Your task to perform on an android device: View the shopping cart on amazon.com. Add "logitech g903" to the cart on amazon.com Image 0: 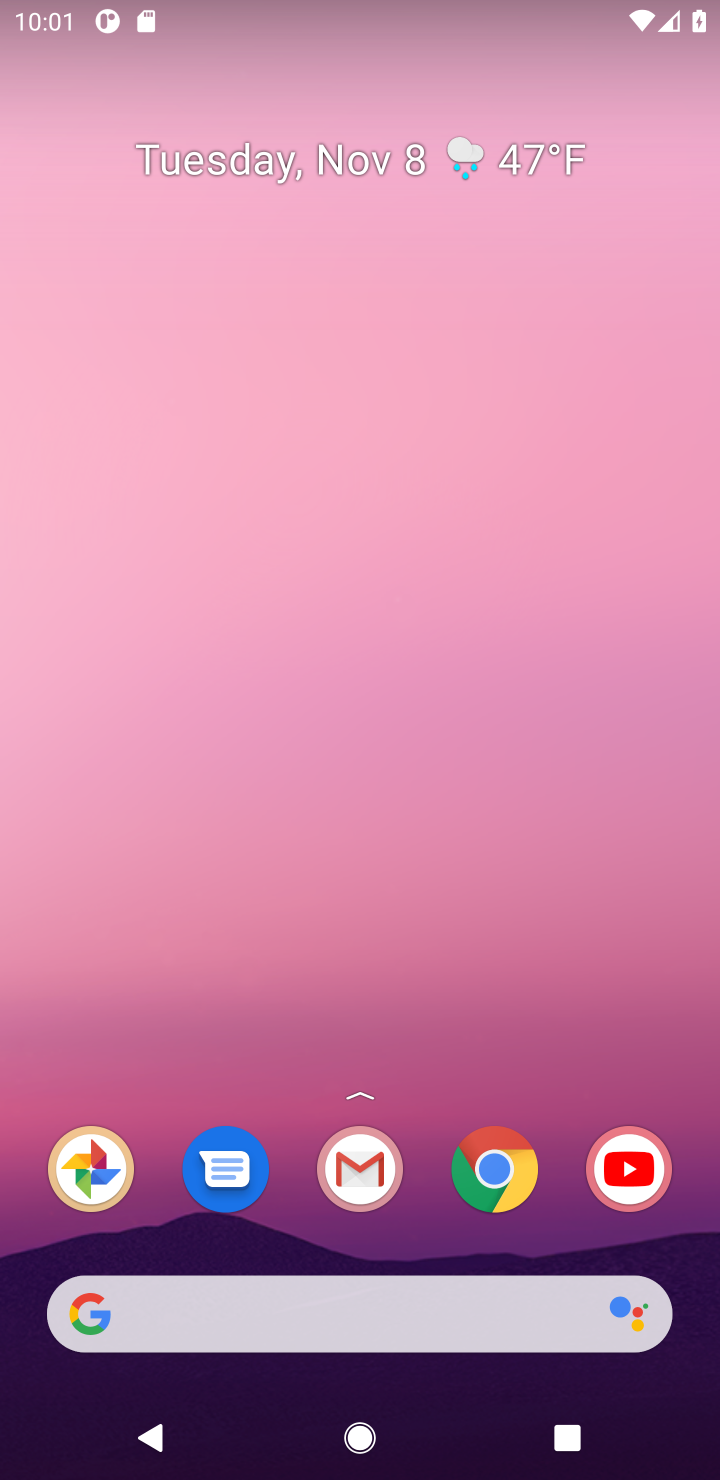
Step 0: click (502, 1195)
Your task to perform on an android device: View the shopping cart on amazon.com. Add "logitech g903" to the cart on amazon.com Image 1: 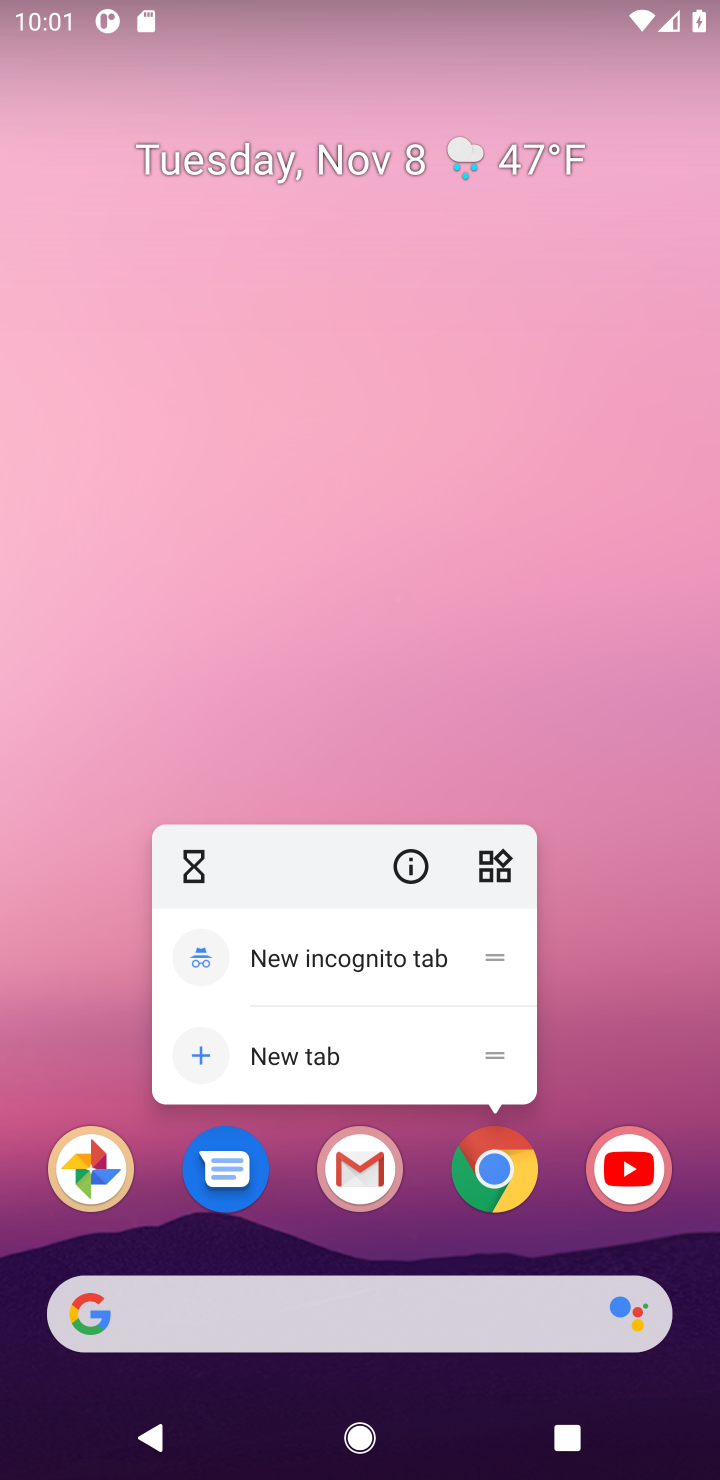
Step 1: click (513, 1165)
Your task to perform on an android device: View the shopping cart on amazon.com. Add "logitech g903" to the cart on amazon.com Image 2: 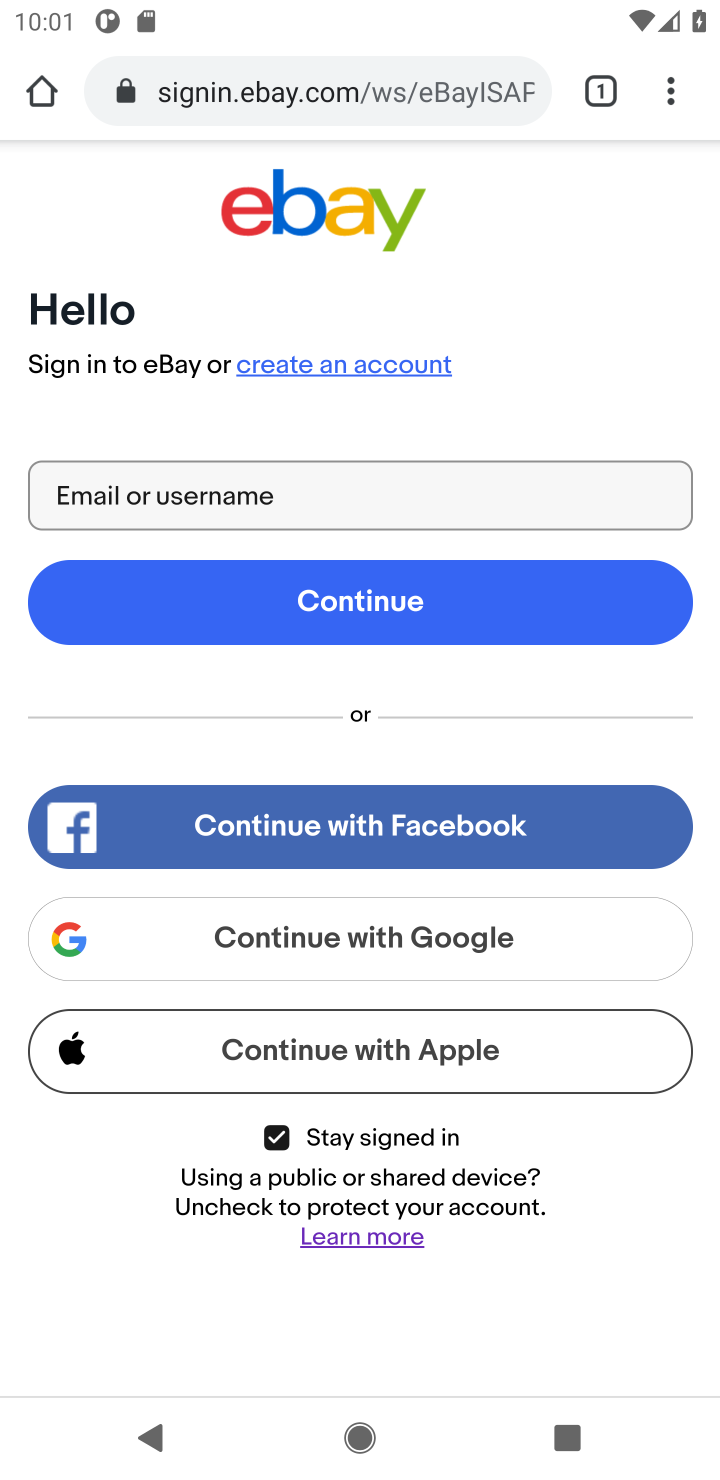
Step 2: click (320, 107)
Your task to perform on an android device: View the shopping cart on amazon.com. Add "logitech g903" to the cart on amazon.com Image 3: 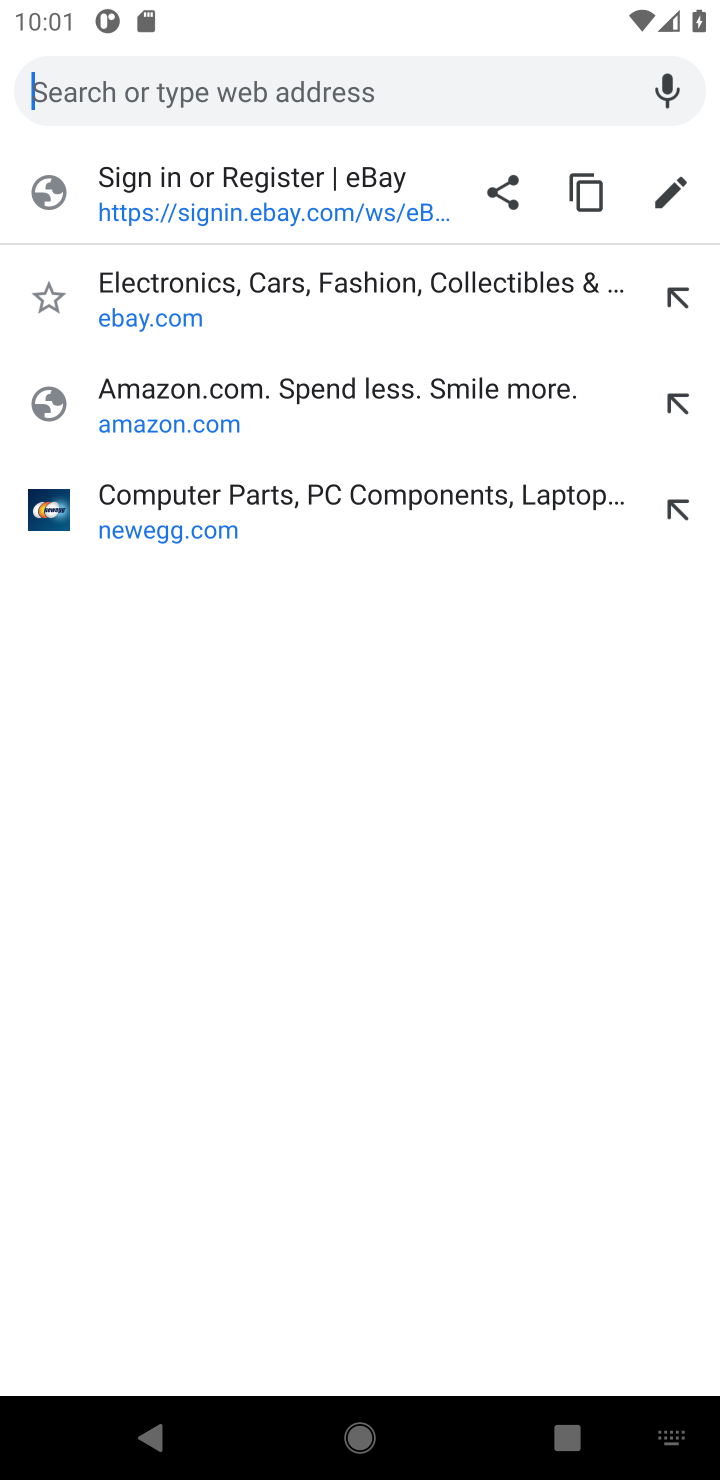
Step 3: press enter
Your task to perform on an android device: View the shopping cart on amazon.com. Add "logitech g903" to the cart on amazon.com Image 4: 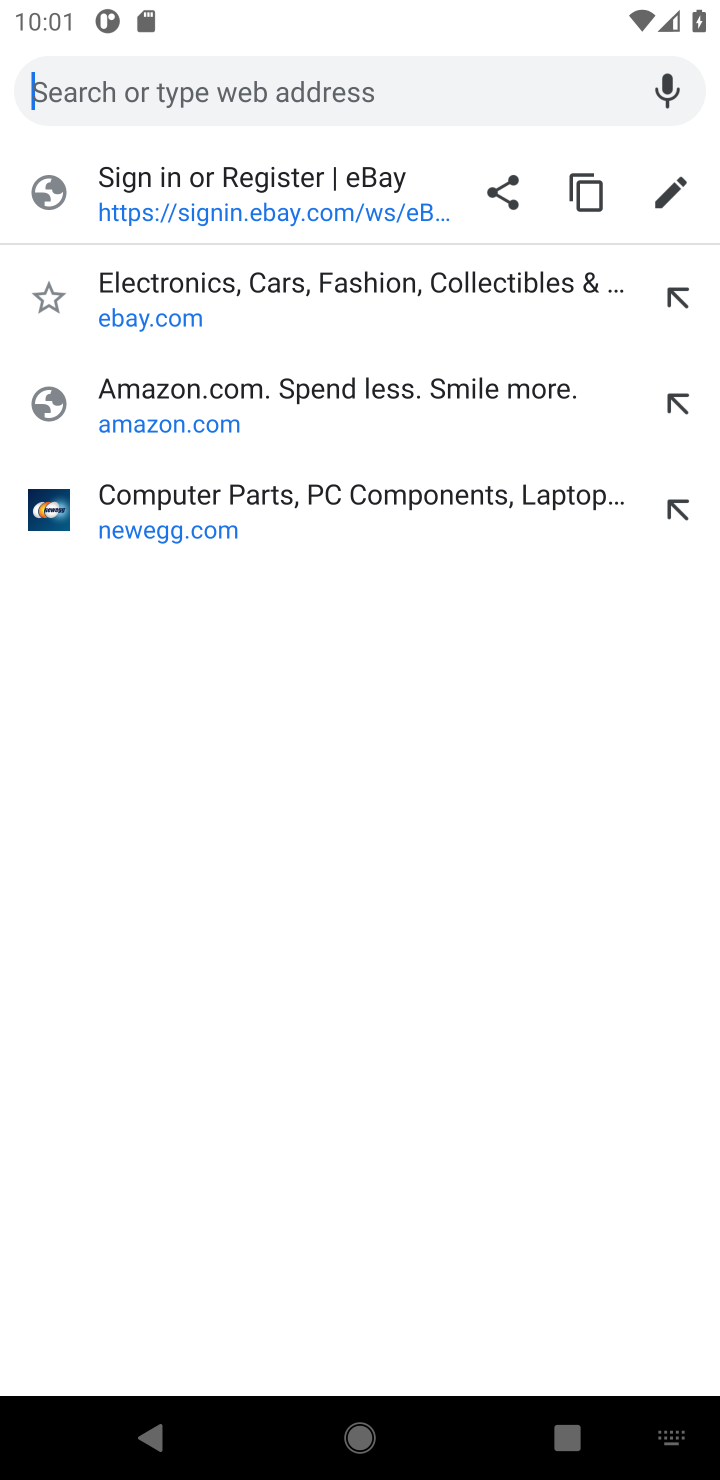
Step 4: type "amazon.com"
Your task to perform on an android device: View the shopping cart on amazon.com. Add "logitech g903" to the cart on amazon.com Image 5: 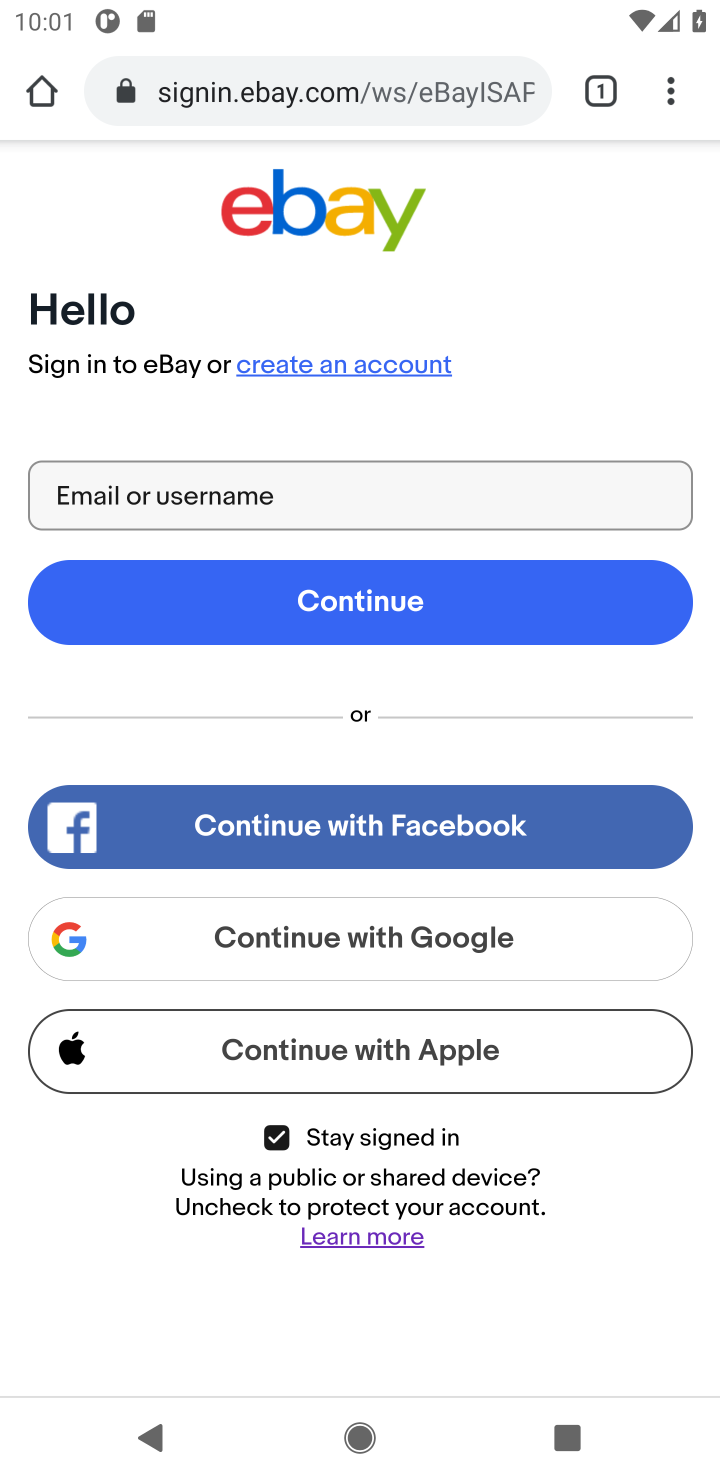
Step 5: click (409, 101)
Your task to perform on an android device: View the shopping cart on amazon.com. Add "logitech g903" to the cart on amazon.com Image 6: 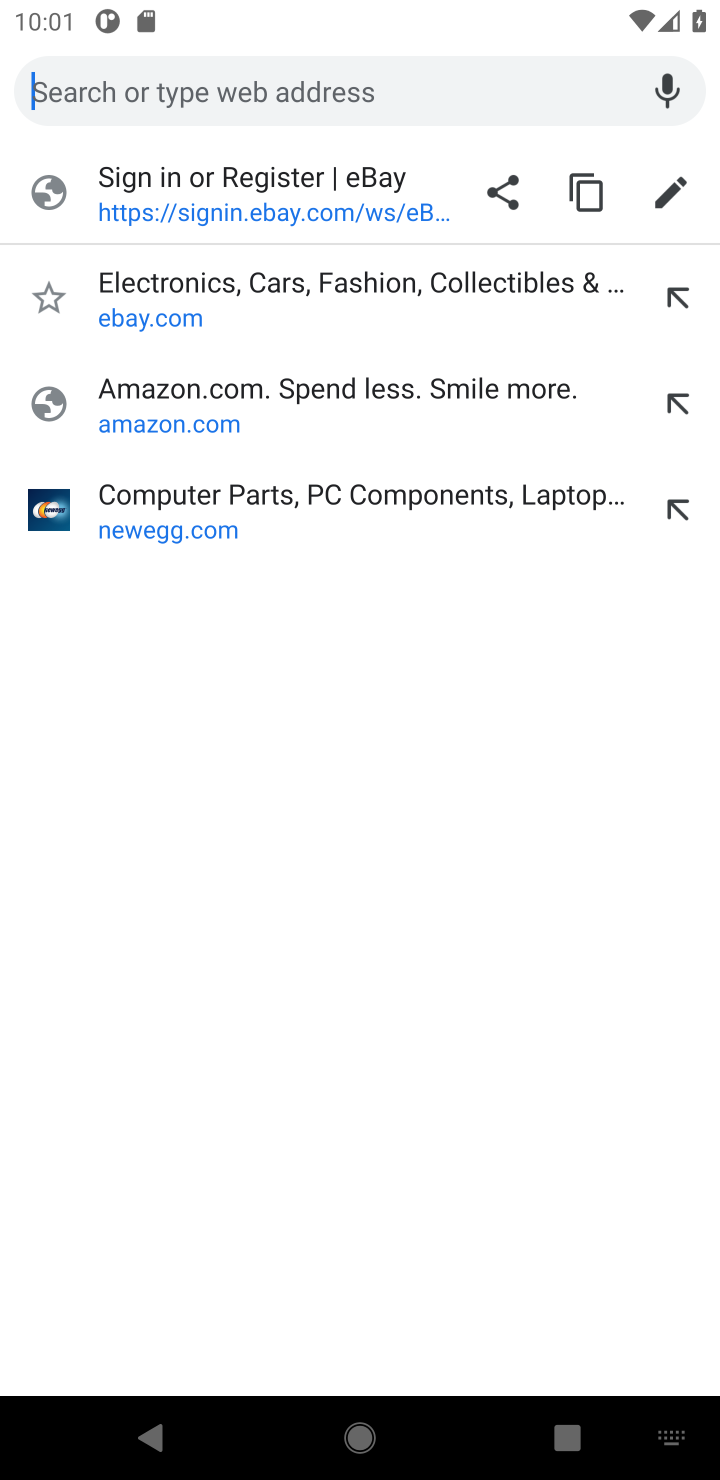
Step 6: click (310, 381)
Your task to perform on an android device: View the shopping cart on amazon.com. Add "logitech g903" to the cart on amazon.com Image 7: 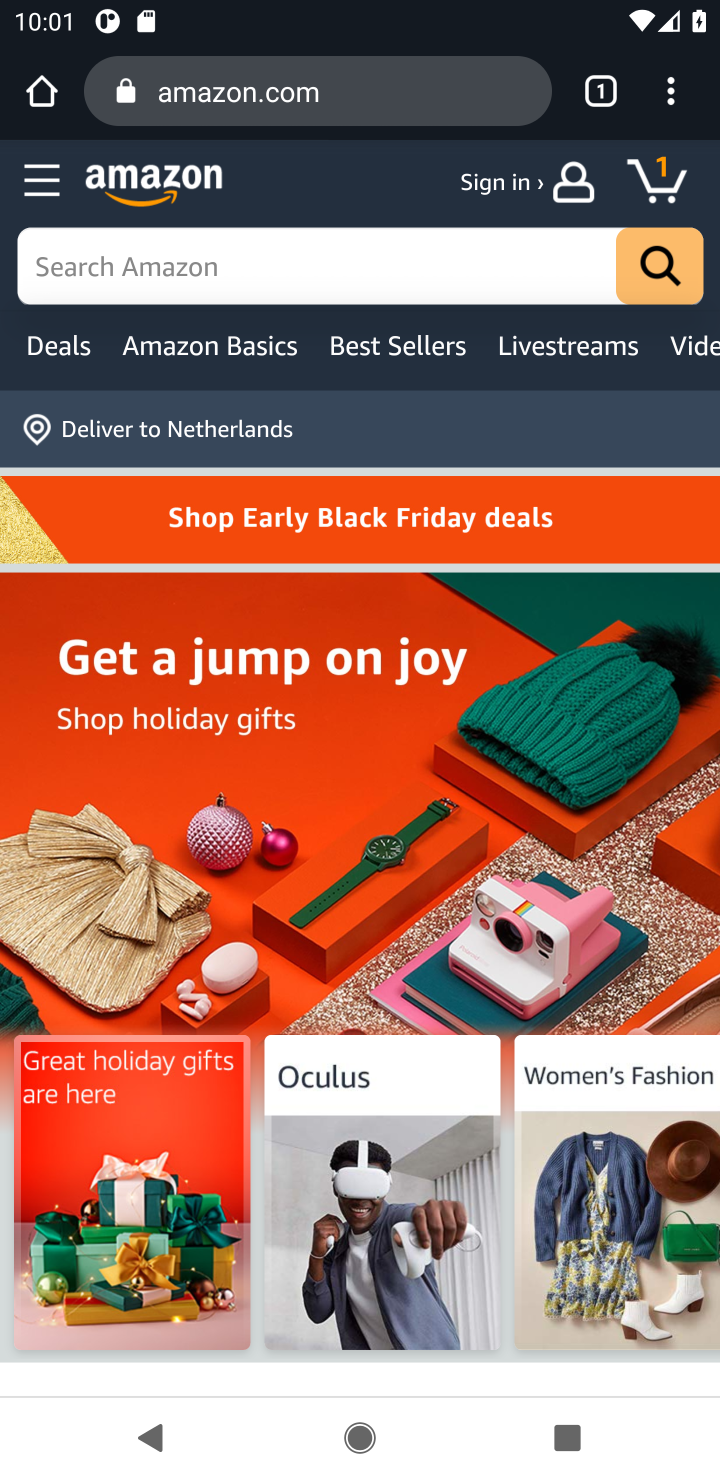
Step 7: click (660, 196)
Your task to perform on an android device: View the shopping cart on amazon.com. Add "logitech g903" to the cart on amazon.com Image 8: 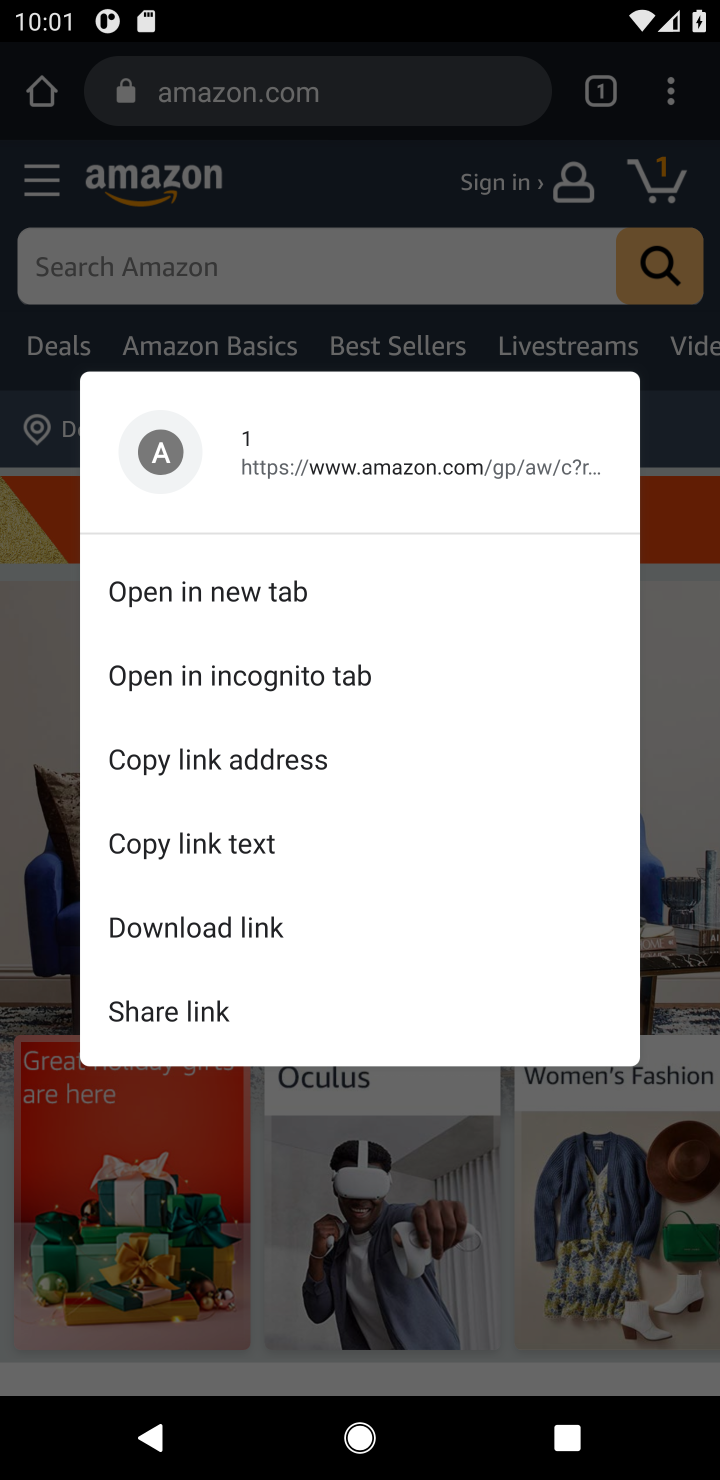
Step 8: click (662, 191)
Your task to perform on an android device: View the shopping cart on amazon.com. Add "logitech g903" to the cart on amazon.com Image 9: 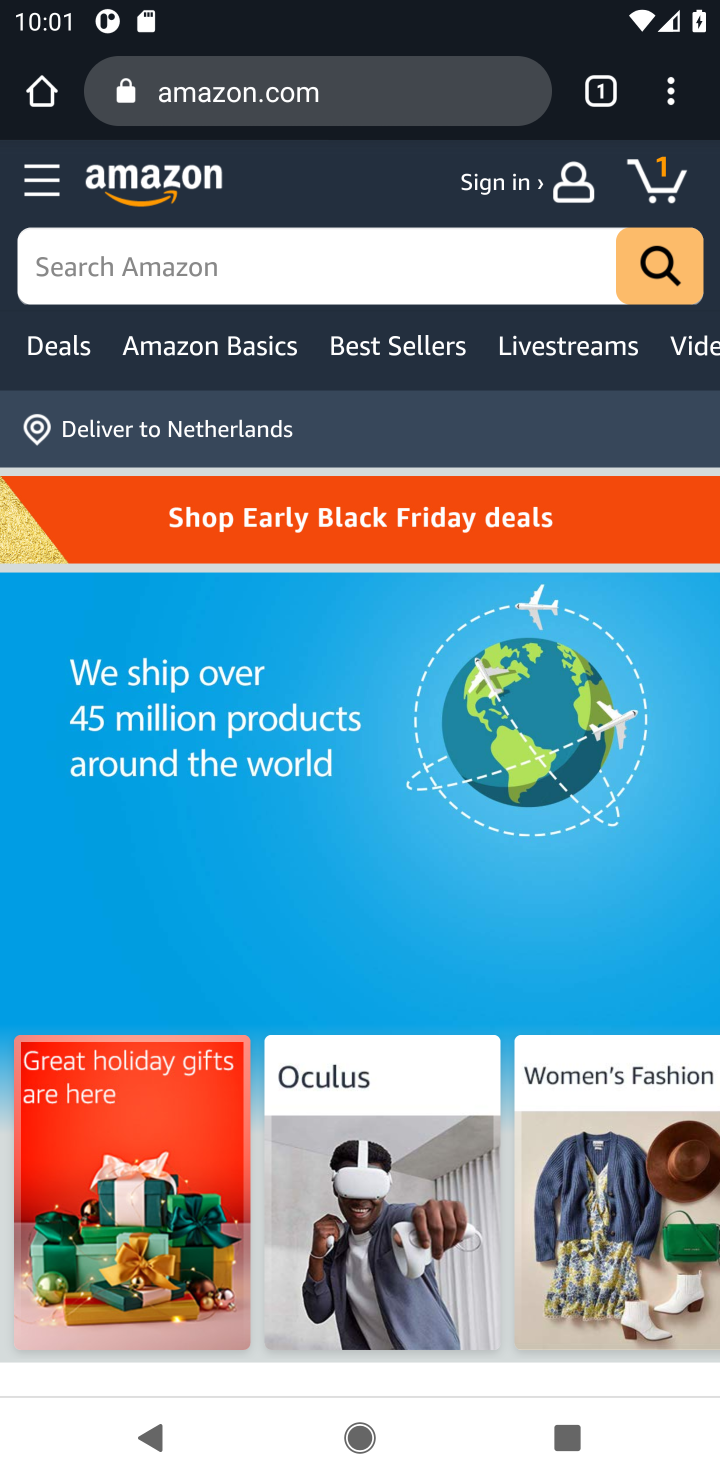
Step 9: click (662, 191)
Your task to perform on an android device: View the shopping cart on amazon.com. Add "logitech g903" to the cart on amazon.com Image 10: 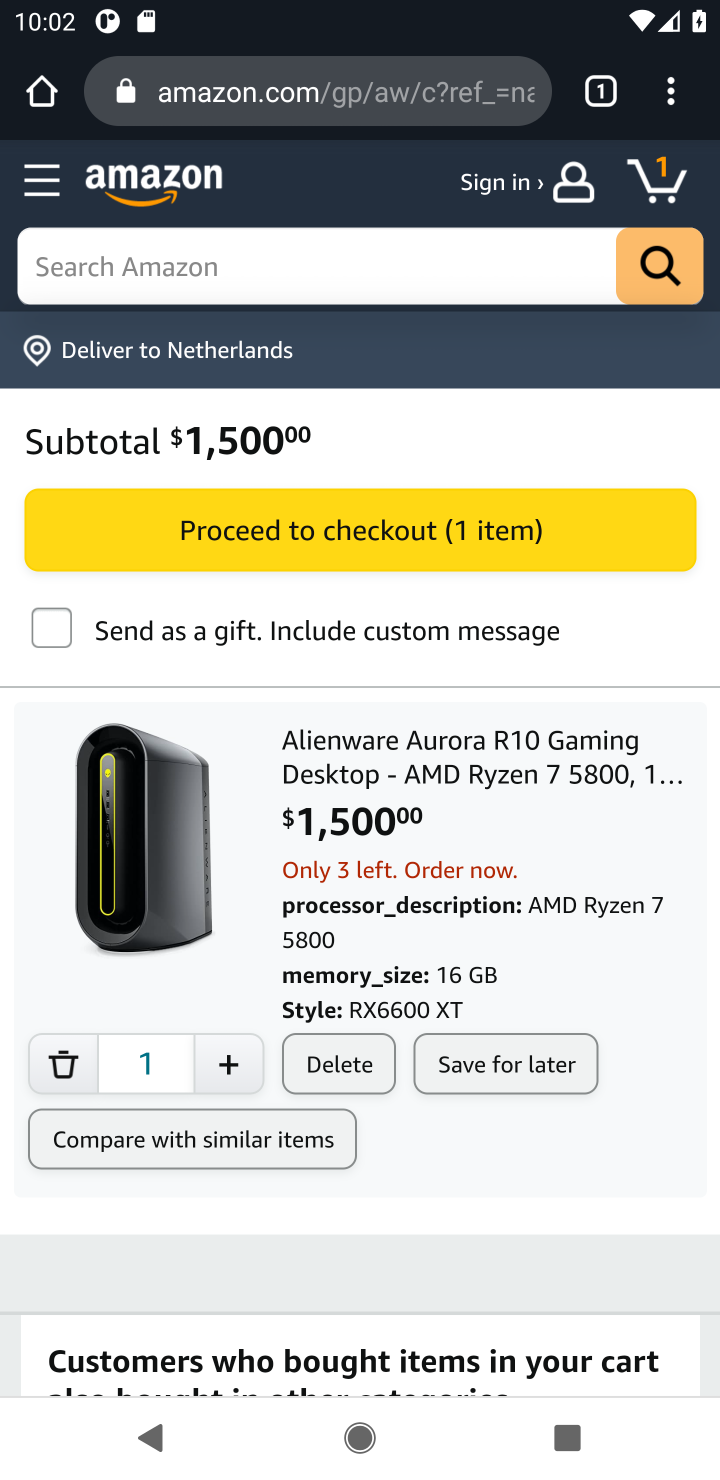
Step 10: click (334, 1056)
Your task to perform on an android device: View the shopping cart on amazon.com. Add "logitech g903" to the cart on amazon.com Image 11: 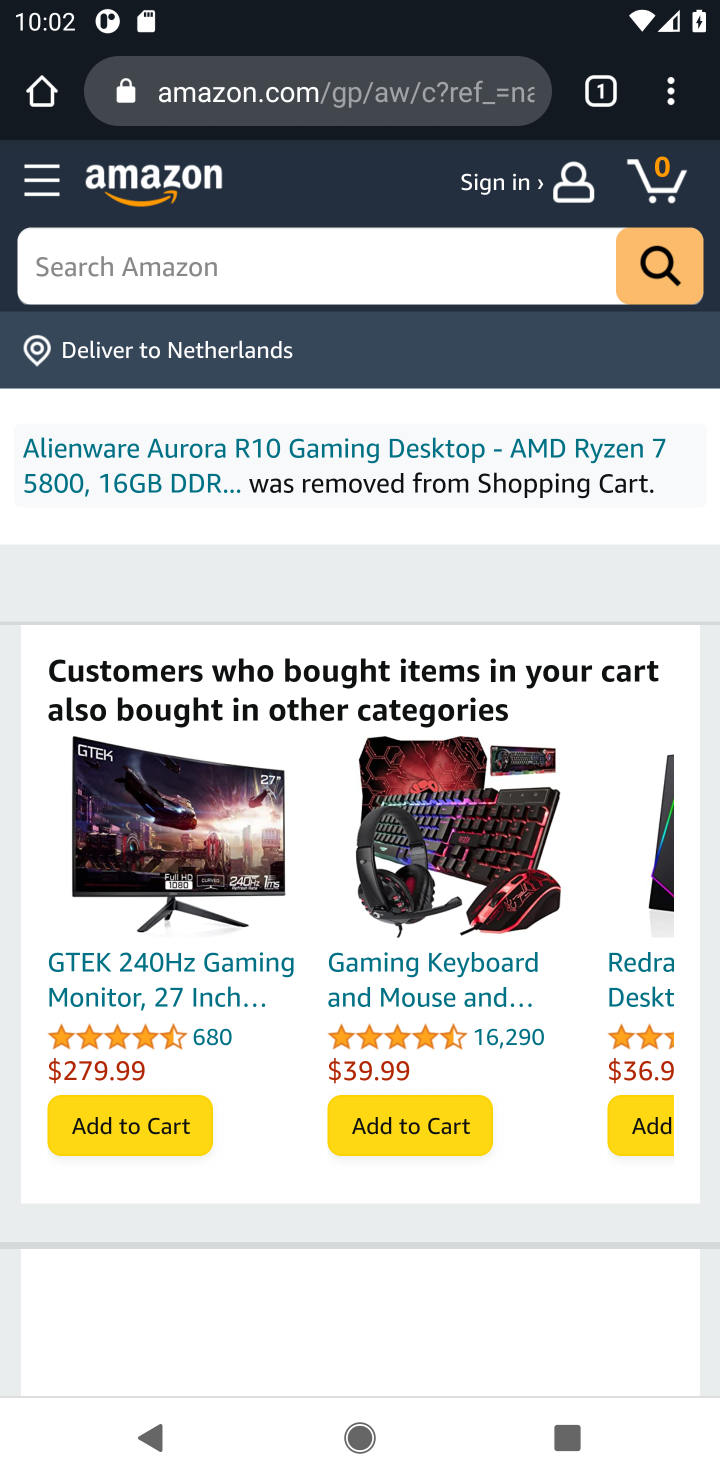
Step 11: click (416, 263)
Your task to perform on an android device: View the shopping cart on amazon.com. Add "logitech g903" to the cart on amazon.com Image 12: 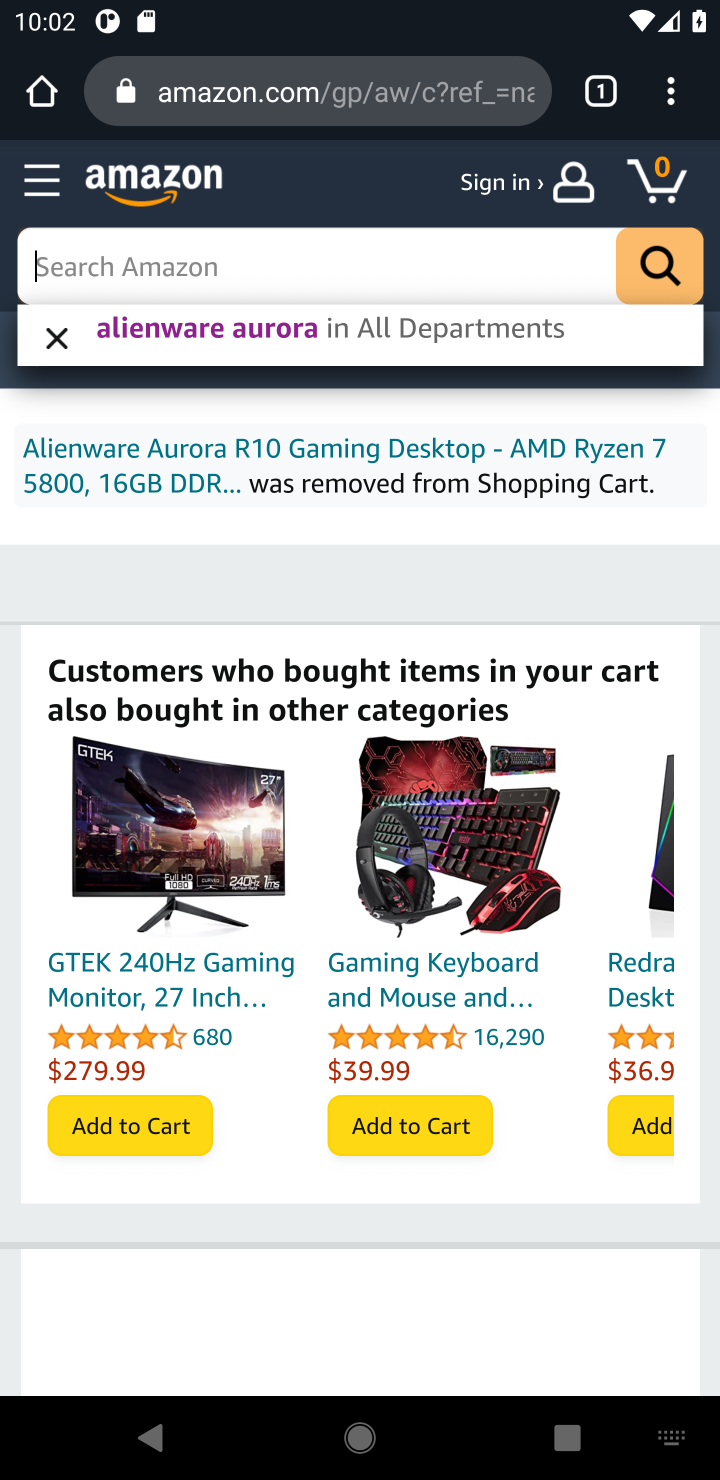
Step 12: click (448, 272)
Your task to perform on an android device: View the shopping cart on amazon.com. Add "logitech g903" to the cart on amazon.com Image 13: 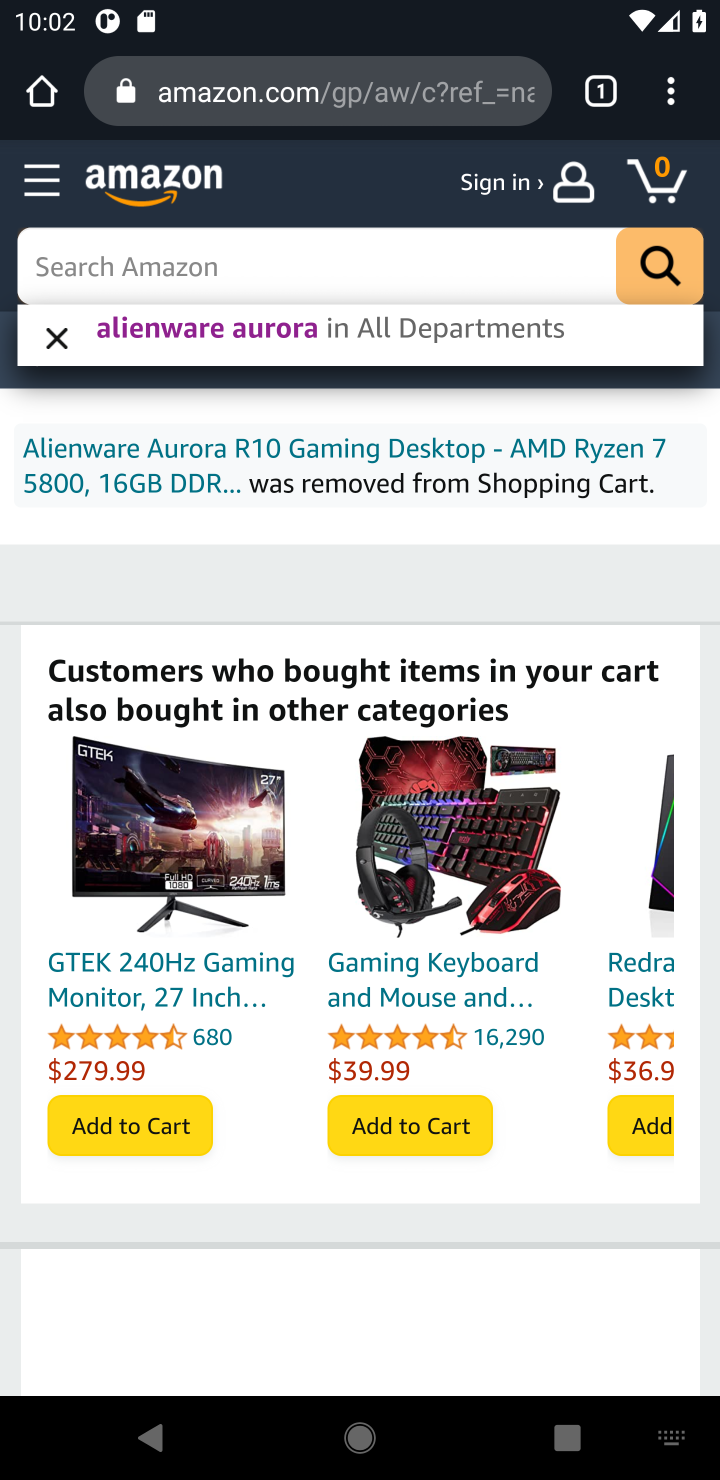
Step 13: type "logitech g903"
Your task to perform on an android device: View the shopping cart on amazon.com. Add "logitech g903" to the cart on amazon.com Image 14: 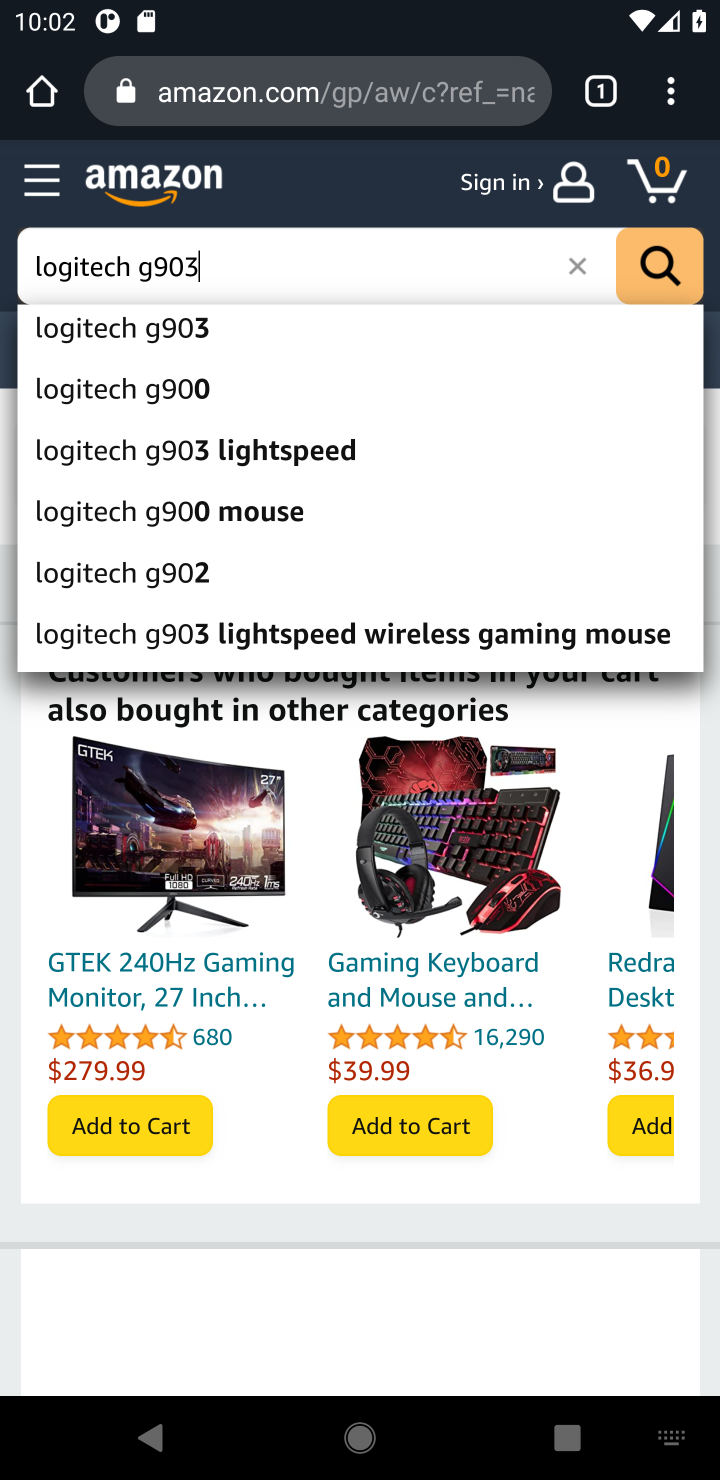
Step 14: press enter
Your task to perform on an android device: View the shopping cart on amazon.com. Add "logitech g903" to the cart on amazon.com Image 15: 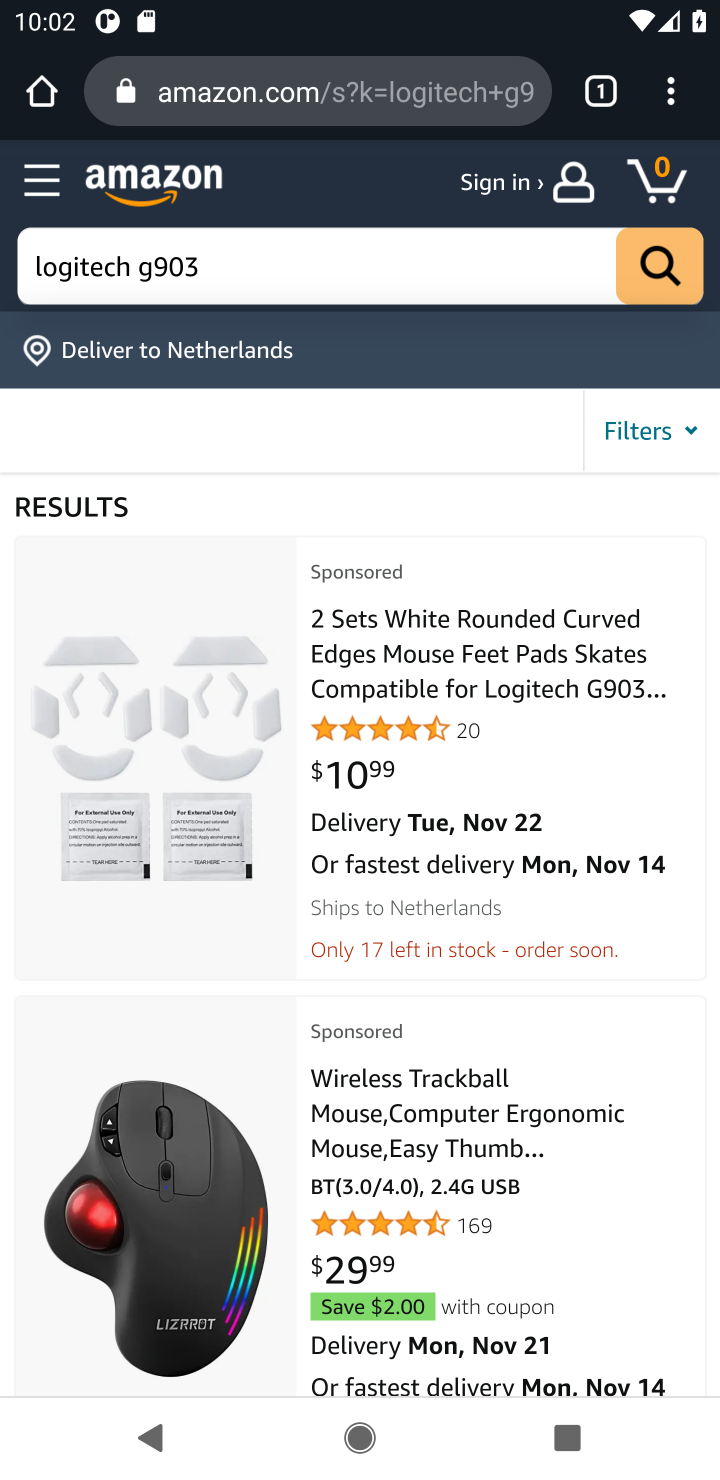
Step 15: drag from (547, 1159) to (540, 652)
Your task to perform on an android device: View the shopping cart on amazon.com. Add "logitech g903" to the cart on amazon.com Image 16: 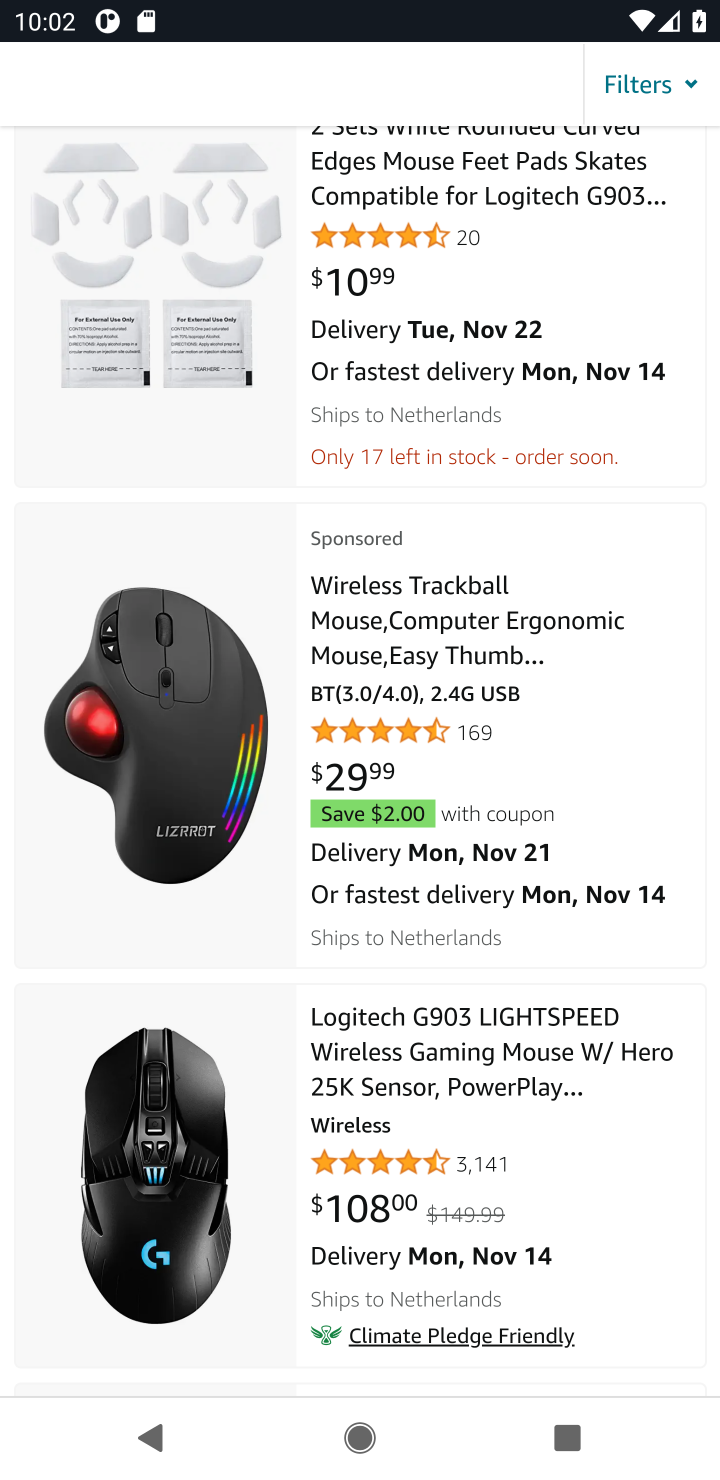
Step 16: click (189, 1133)
Your task to perform on an android device: View the shopping cart on amazon.com. Add "logitech g903" to the cart on amazon.com Image 17: 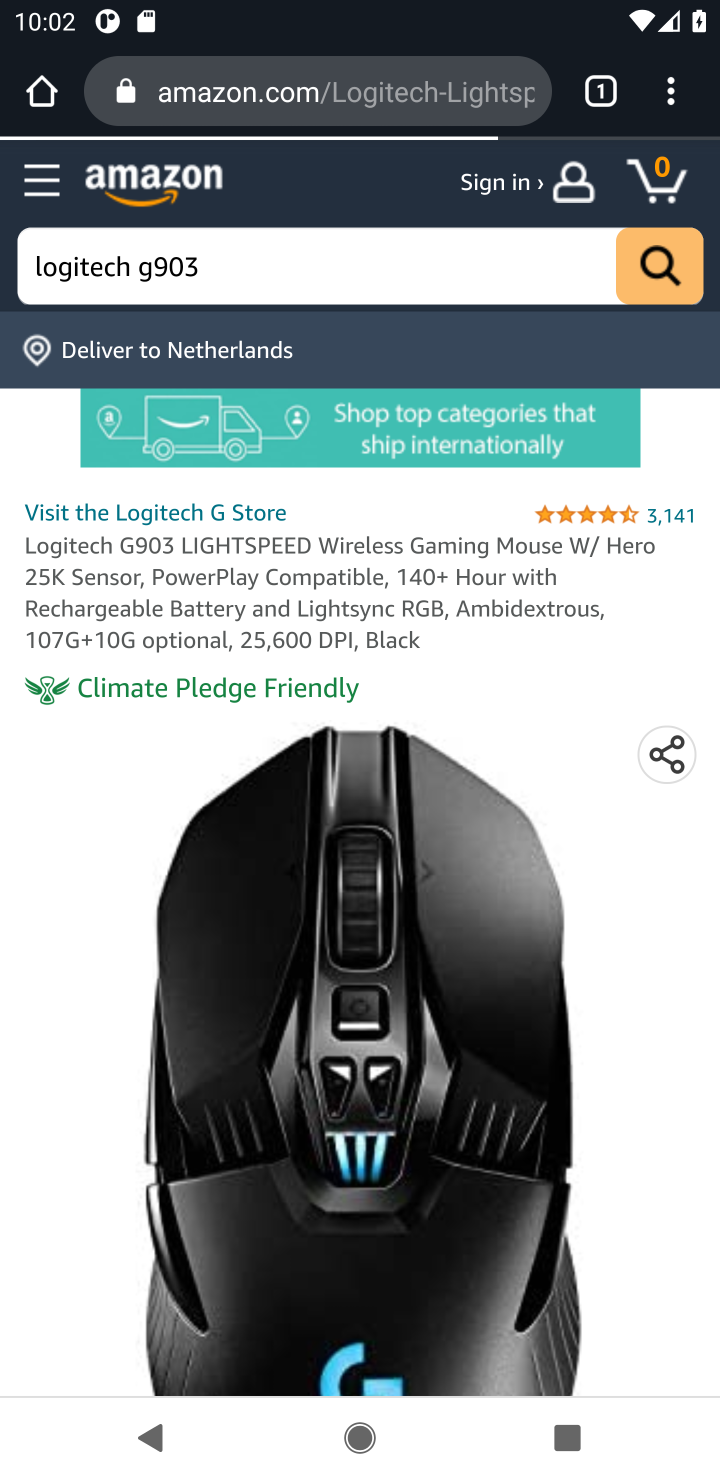
Step 17: drag from (554, 1064) to (615, 379)
Your task to perform on an android device: View the shopping cart on amazon.com. Add "logitech g903" to the cart on amazon.com Image 18: 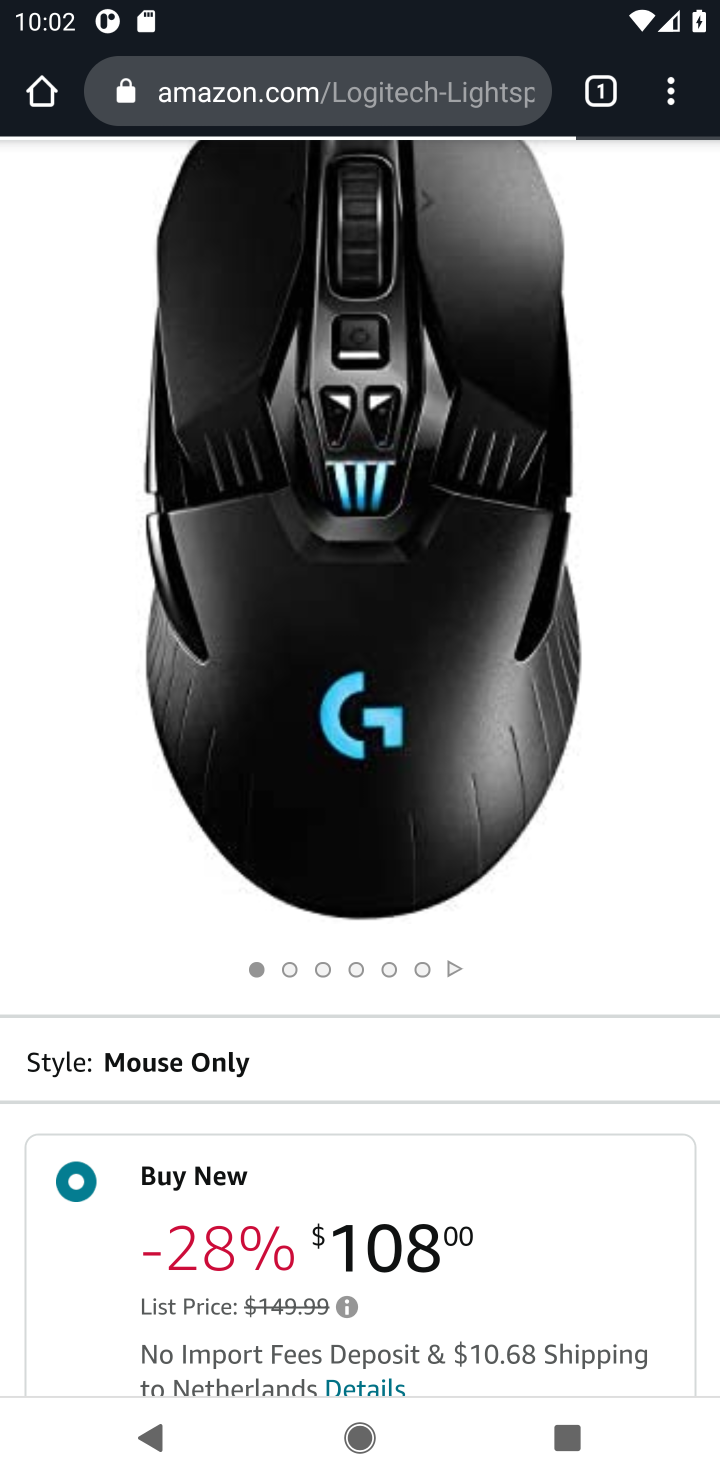
Step 18: drag from (499, 926) to (451, 366)
Your task to perform on an android device: View the shopping cart on amazon.com. Add "logitech g903" to the cart on amazon.com Image 19: 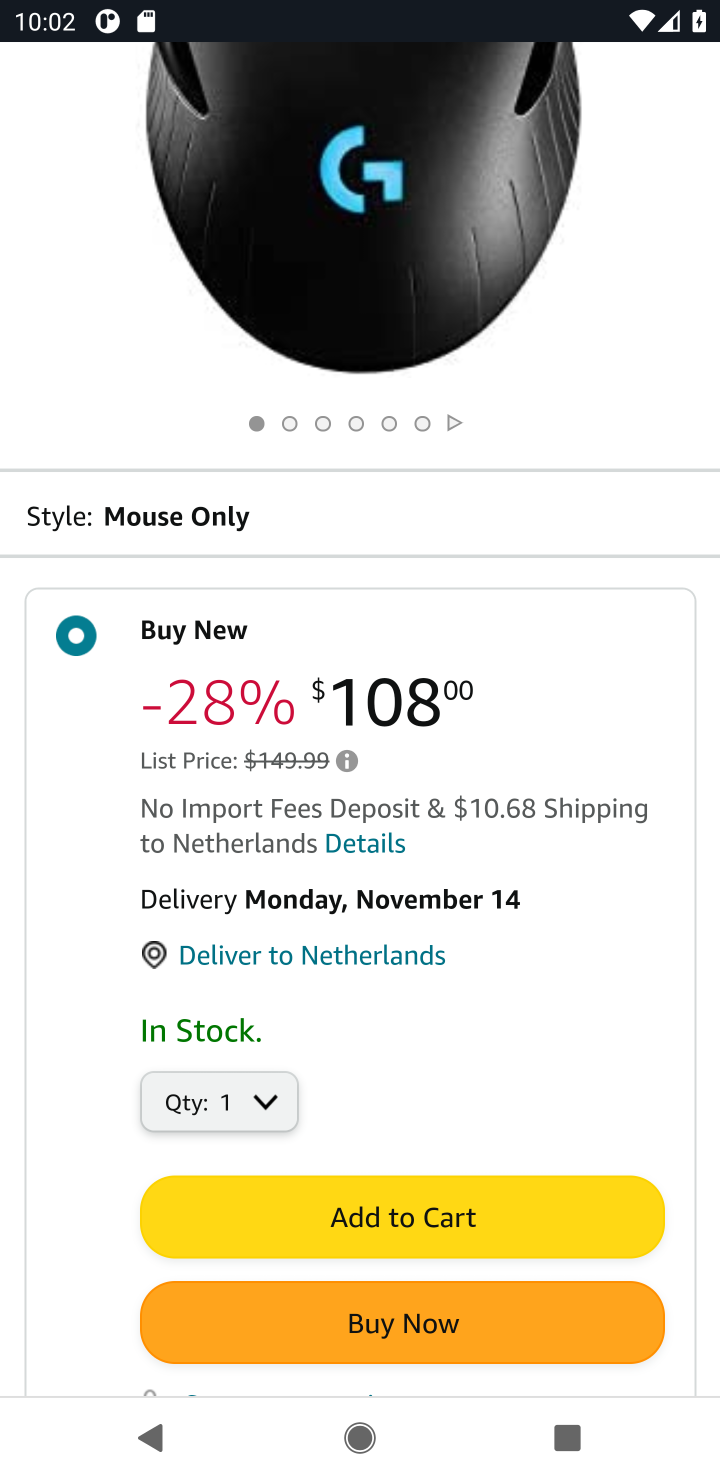
Step 19: click (433, 1217)
Your task to perform on an android device: View the shopping cart on amazon.com. Add "logitech g903" to the cart on amazon.com Image 20: 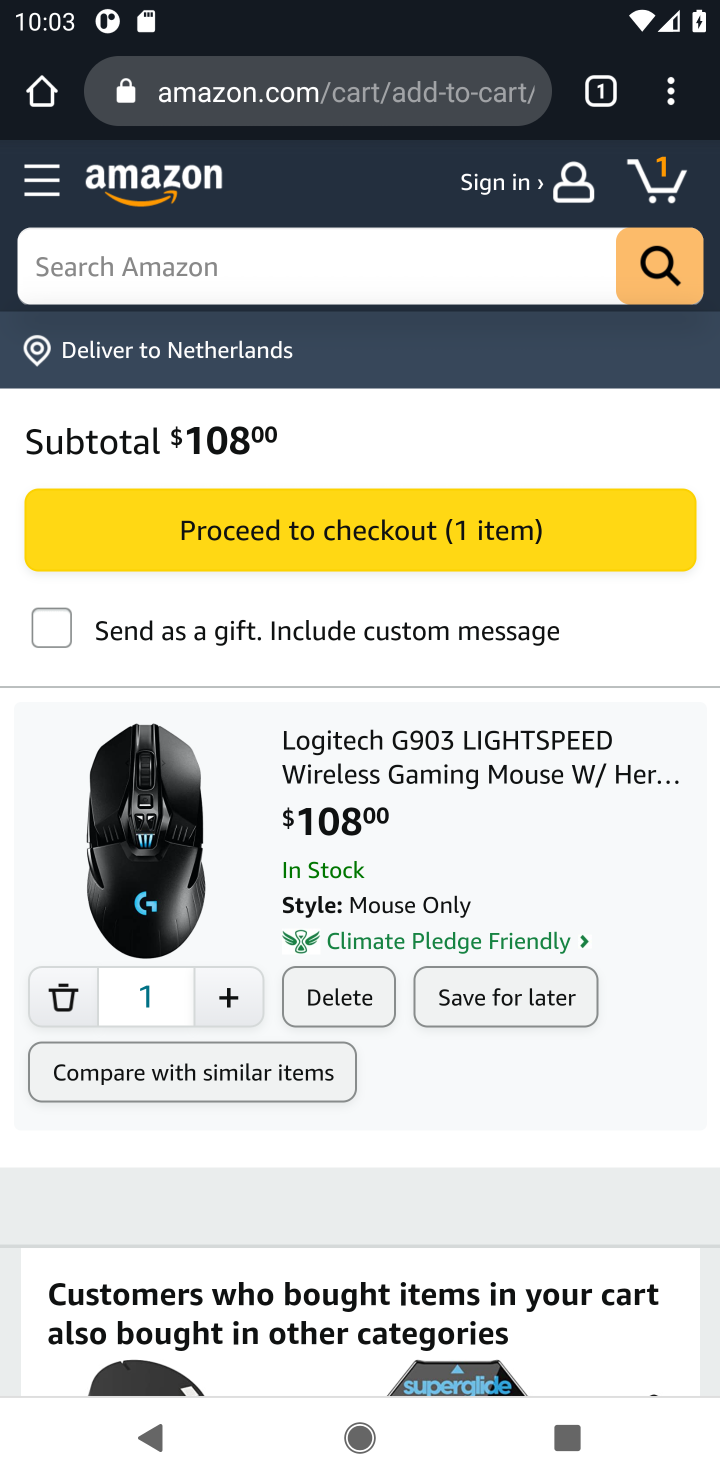
Step 20: task complete